Your task to perform on an android device: Search for "razer blade" on costco.com, select the first entry, and add it to the cart. Image 0: 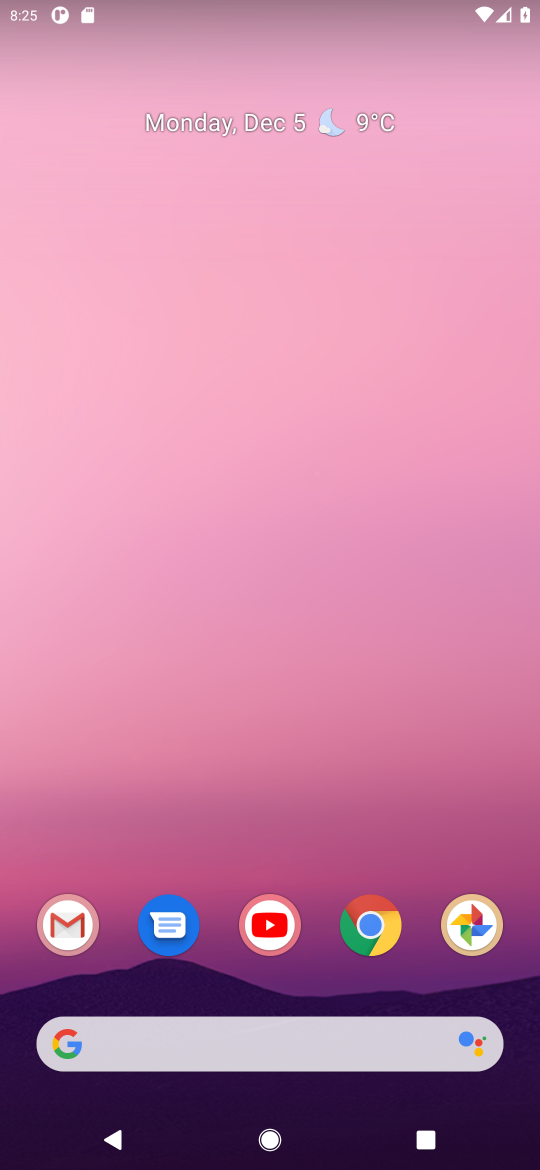
Step 0: click (371, 927)
Your task to perform on an android device: Search for "razer blade" on costco.com, select the first entry, and add it to the cart. Image 1: 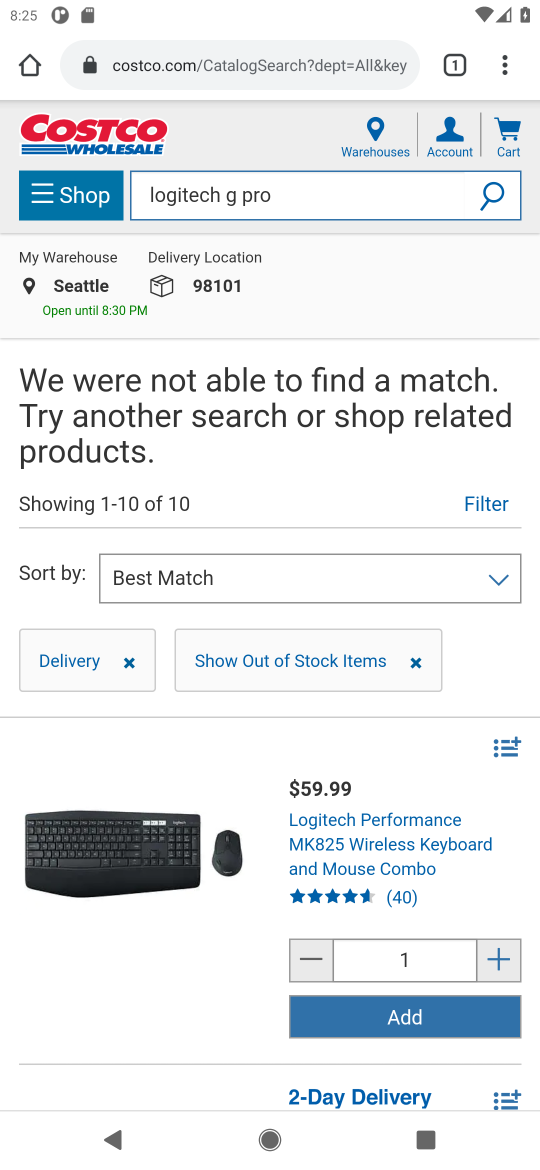
Step 1: click (251, 197)
Your task to perform on an android device: Search for "razer blade" on costco.com, select the first entry, and add it to the cart. Image 2: 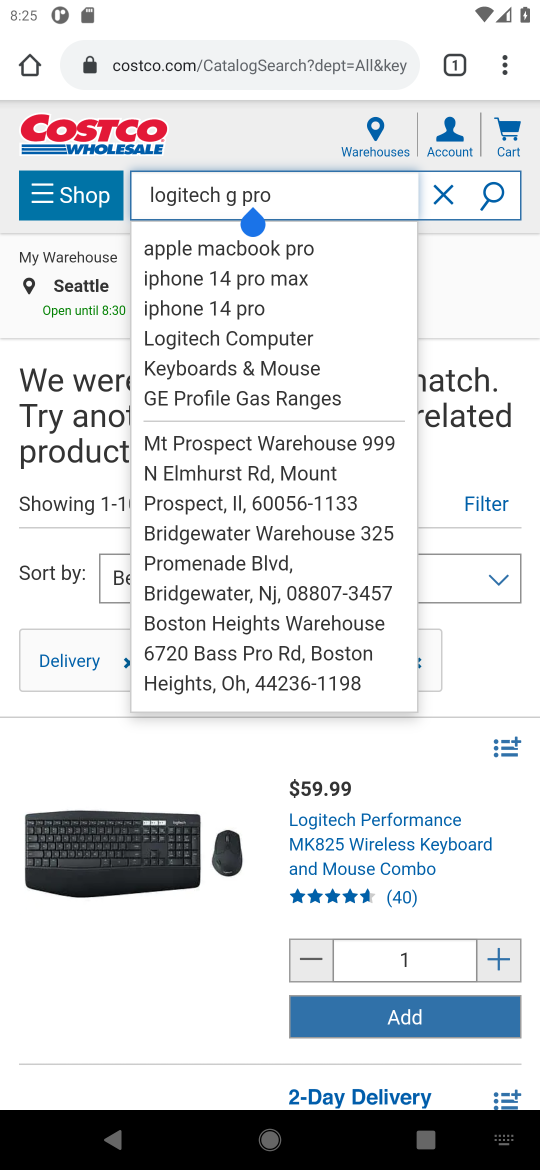
Step 2: click (447, 194)
Your task to perform on an android device: Search for "razer blade" on costco.com, select the first entry, and add it to the cart. Image 3: 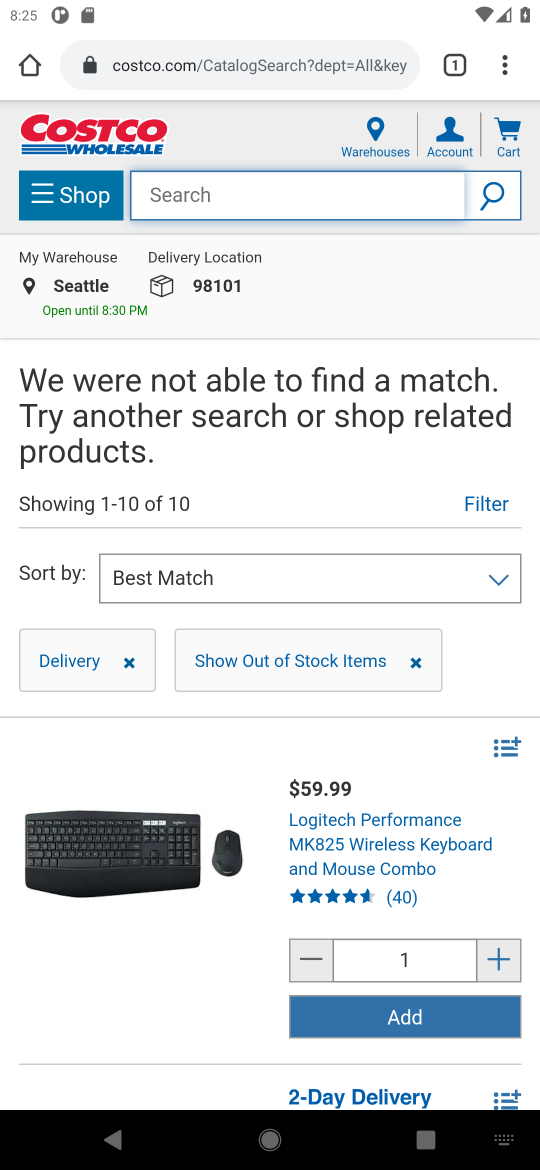
Step 3: type "razer blade"
Your task to perform on an android device: Search for "razer blade" on costco.com, select the first entry, and add it to the cart. Image 4: 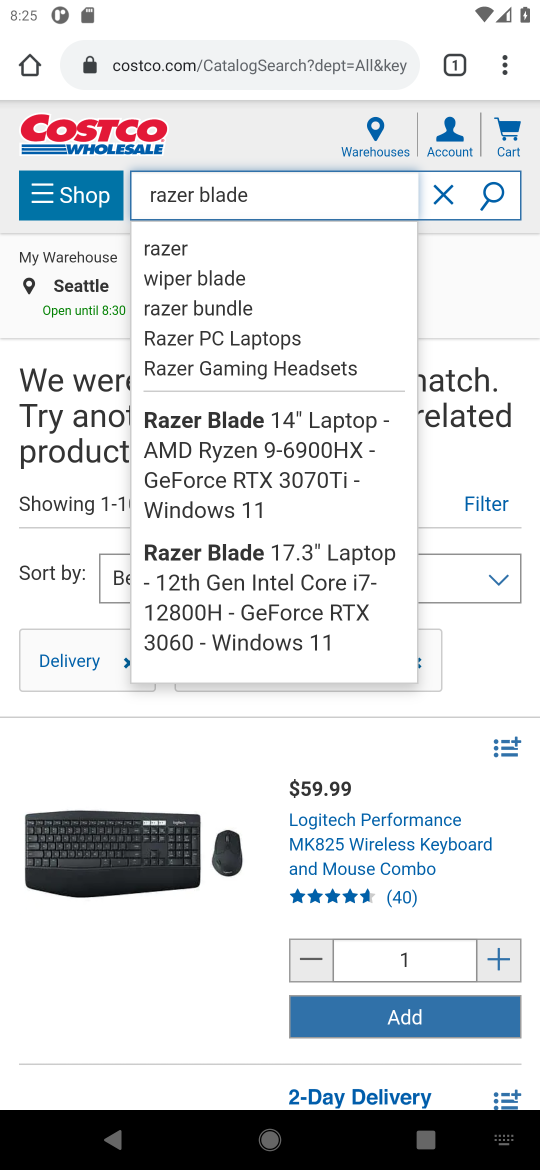
Step 4: click (484, 201)
Your task to perform on an android device: Search for "razer blade" on costco.com, select the first entry, and add it to the cart. Image 5: 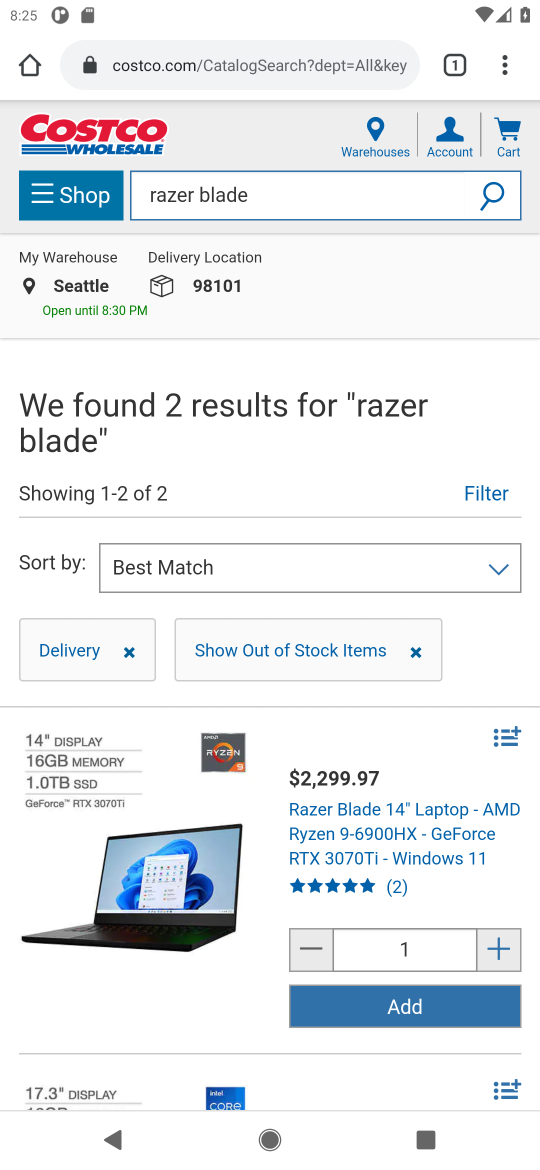
Step 5: click (370, 1002)
Your task to perform on an android device: Search for "razer blade" on costco.com, select the first entry, and add it to the cart. Image 6: 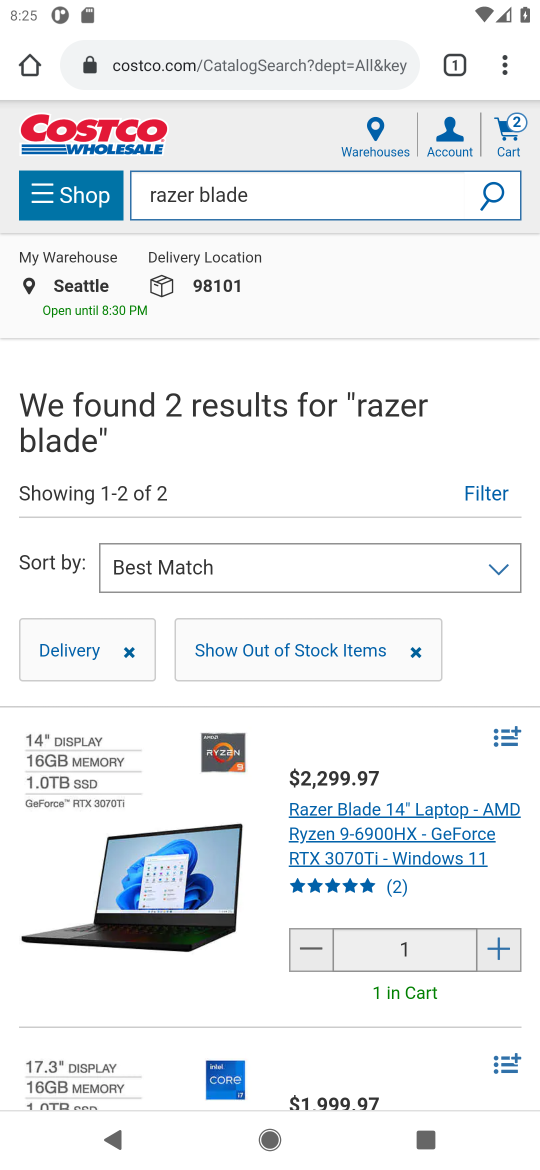
Step 6: task complete